Your task to perform on an android device: Turn off the flashlight Image 0: 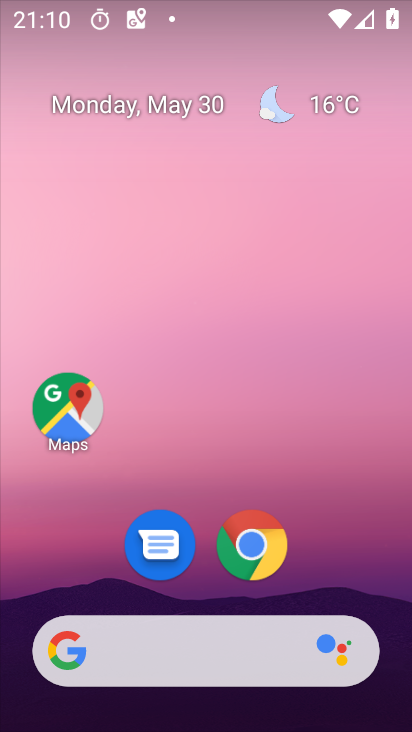
Step 0: drag from (325, 569) to (270, 149)
Your task to perform on an android device: Turn off the flashlight Image 1: 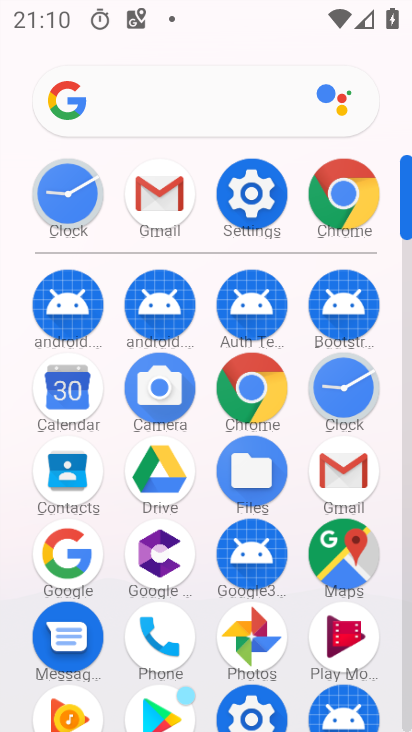
Step 1: click (250, 192)
Your task to perform on an android device: Turn off the flashlight Image 2: 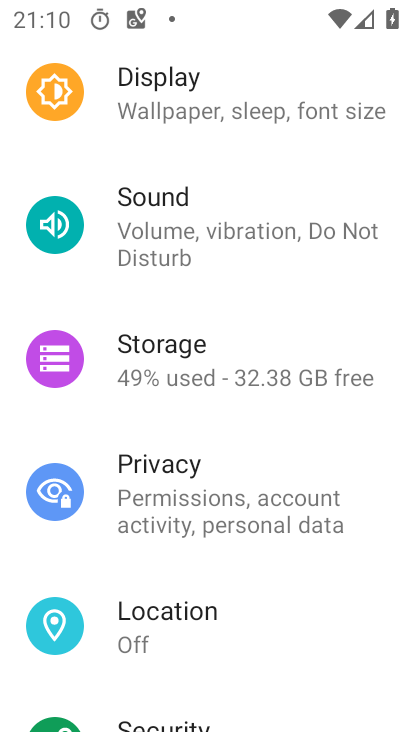
Step 2: drag from (240, 177) to (246, 453)
Your task to perform on an android device: Turn off the flashlight Image 3: 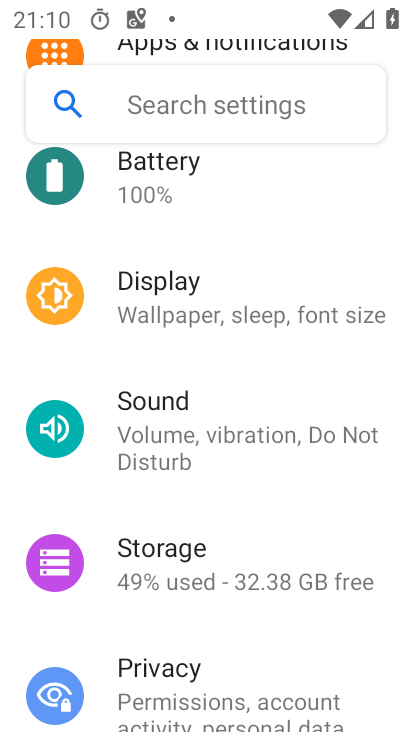
Step 3: drag from (286, 240) to (290, 474)
Your task to perform on an android device: Turn off the flashlight Image 4: 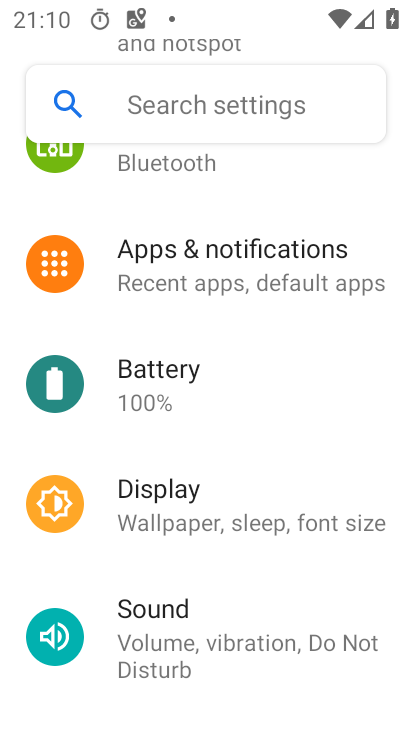
Step 4: click (268, 277)
Your task to perform on an android device: Turn off the flashlight Image 5: 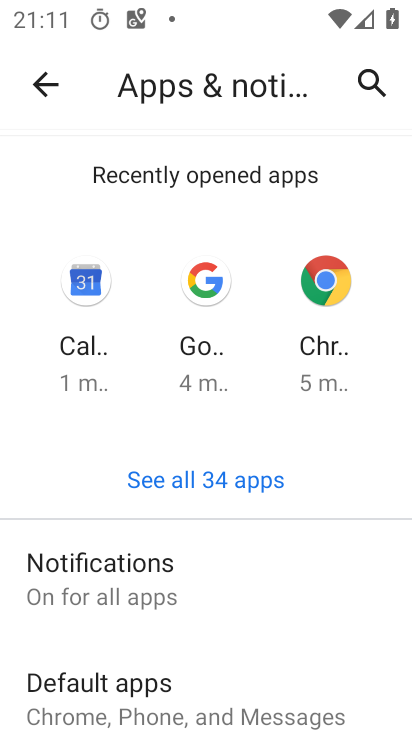
Step 5: drag from (235, 624) to (252, 343)
Your task to perform on an android device: Turn off the flashlight Image 6: 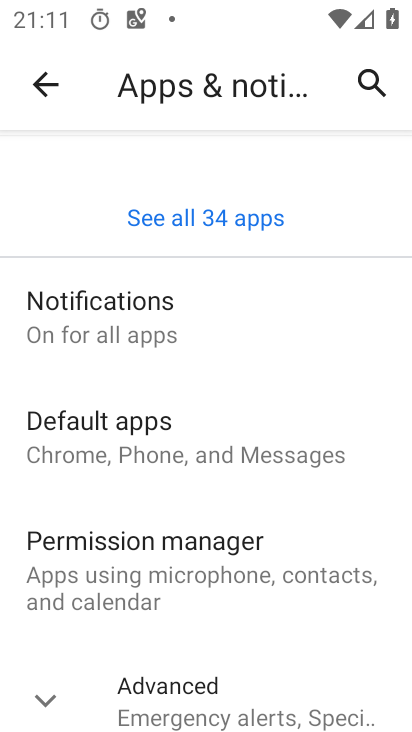
Step 6: drag from (235, 601) to (303, 303)
Your task to perform on an android device: Turn off the flashlight Image 7: 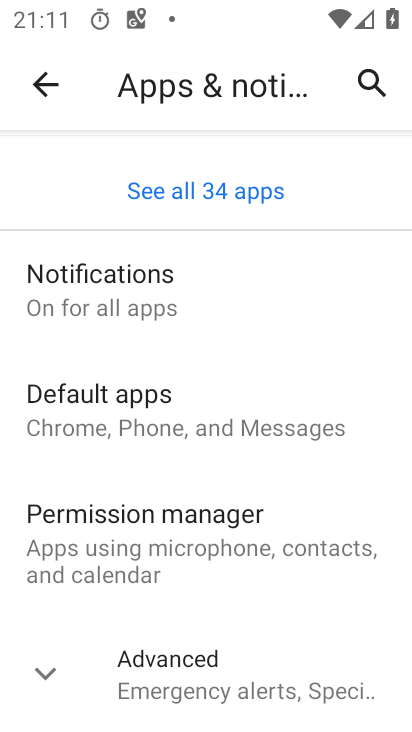
Step 7: click (267, 690)
Your task to perform on an android device: Turn off the flashlight Image 8: 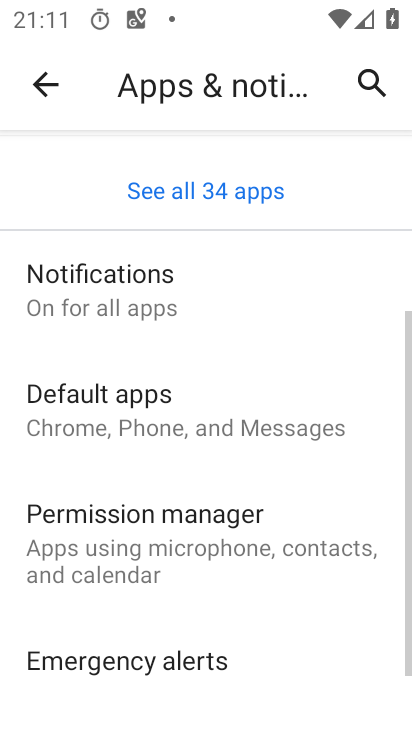
Step 8: drag from (281, 617) to (257, 232)
Your task to perform on an android device: Turn off the flashlight Image 9: 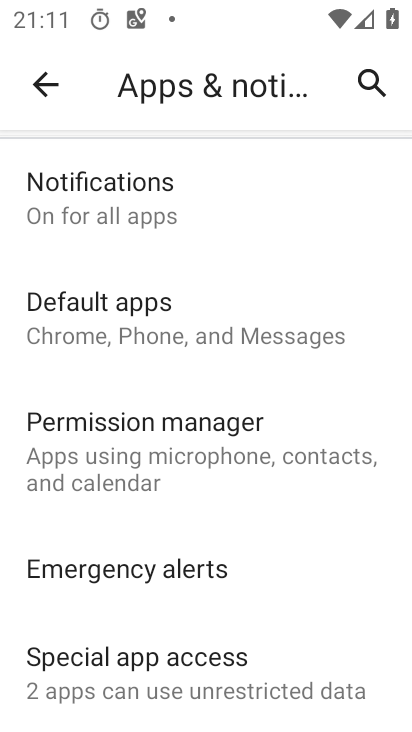
Step 9: click (217, 663)
Your task to perform on an android device: Turn off the flashlight Image 10: 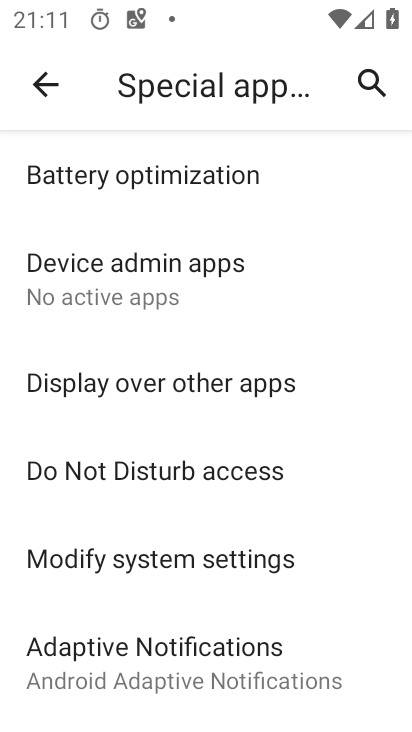
Step 10: task complete